Your task to perform on an android device: check out phone information Image 0: 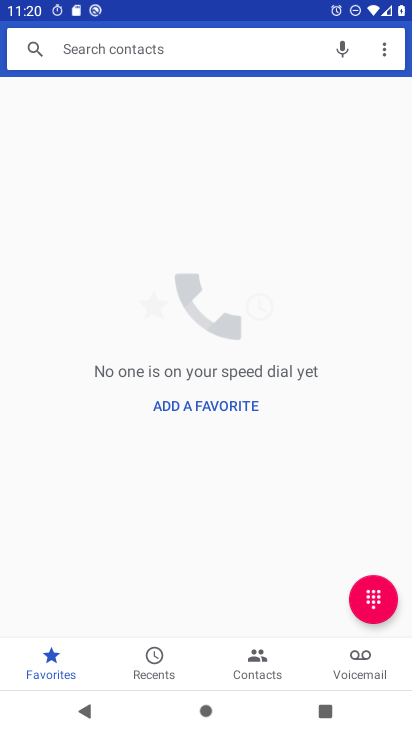
Step 0: press back button
Your task to perform on an android device: check out phone information Image 1: 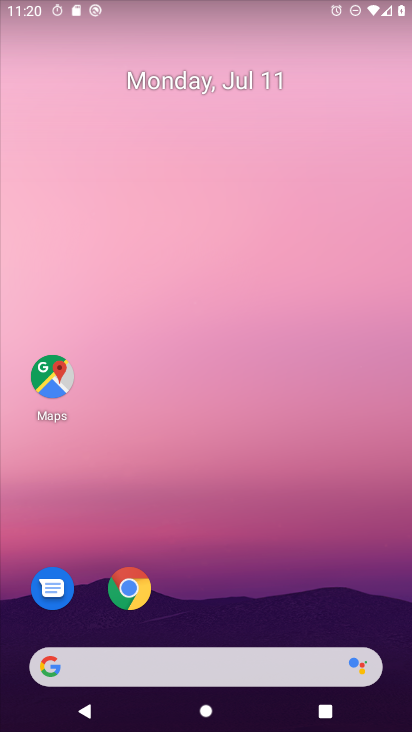
Step 1: drag from (210, 574) to (268, 5)
Your task to perform on an android device: check out phone information Image 2: 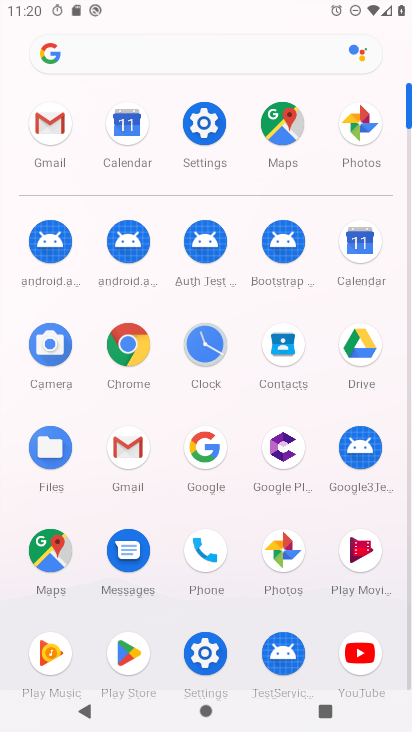
Step 2: click (212, 132)
Your task to perform on an android device: check out phone information Image 3: 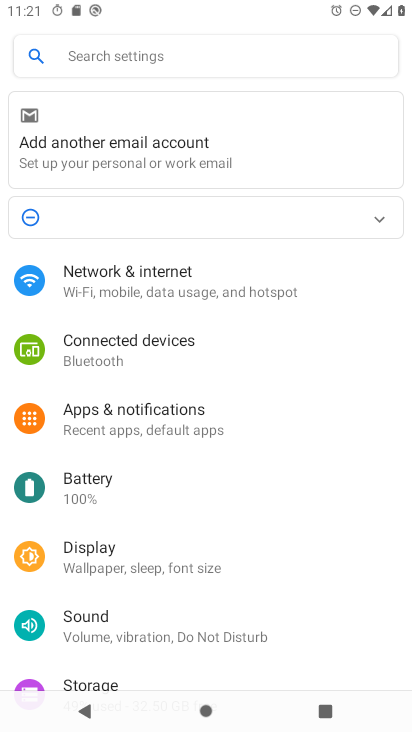
Step 3: drag from (185, 643) to (252, 1)
Your task to perform on an android device: check out phone information Image 4: 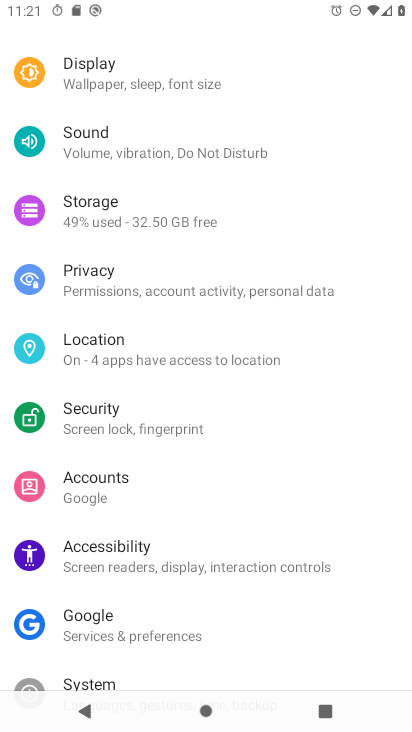
Step 4: drag from (163, 627) to (279, 1)
Your task to perform on an android device: check out phone information Image 5: 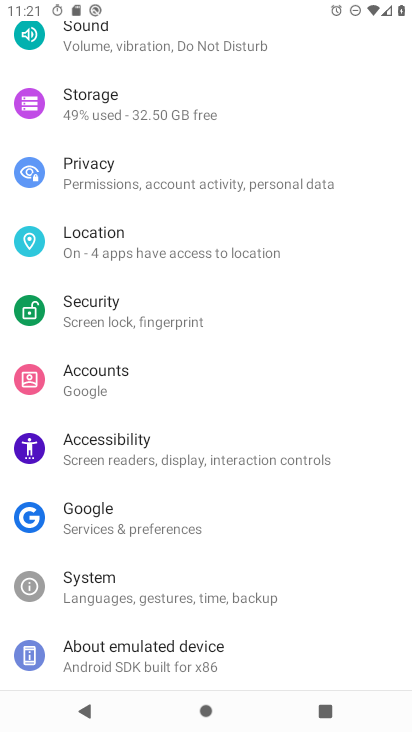
Step 5: click (155, 647)
Your task to perform on an android device: check out phone information Image 6: 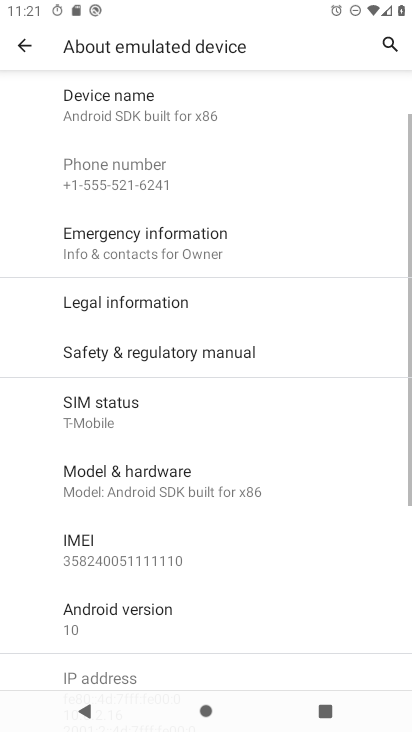
Step 6: task complete